Your task to perform on an android device: Show me recent news Image 0: 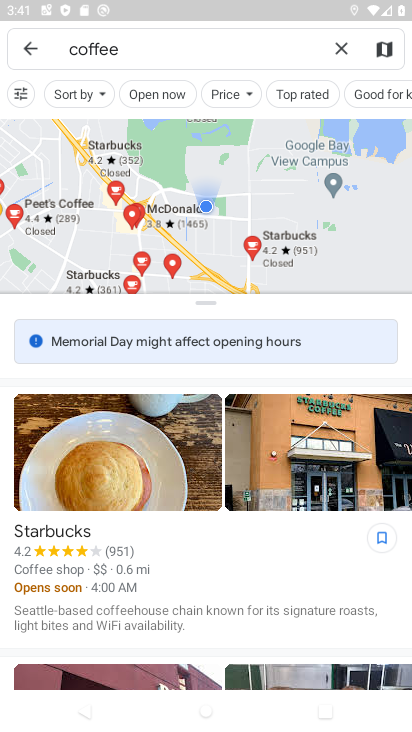
Step 0: press back button
Your task to perform on an android device: Show me recent news Image 1: 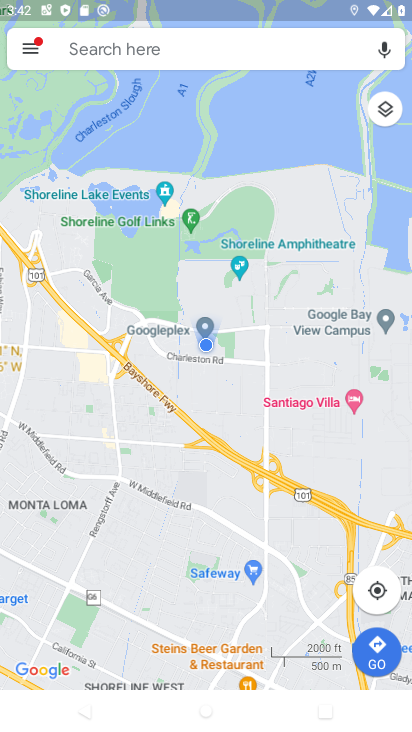
Step 1: press back button
Your task to perform on an android device: Show me recent news Image 2: 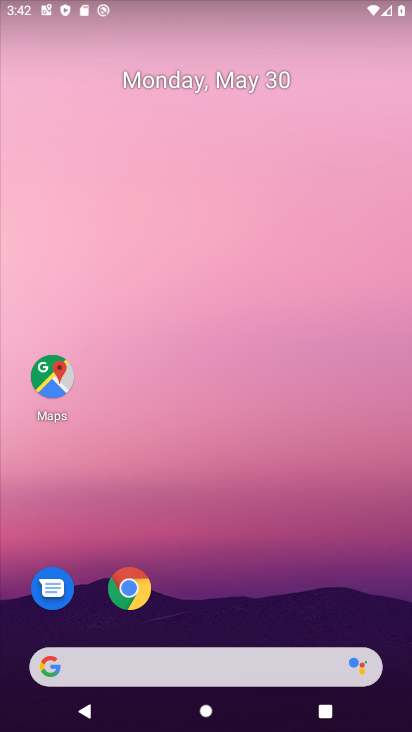
Step 2: drag from (292, 562) to (220, 45)
Your task to perform on an android device: Show me recent news Image 3: 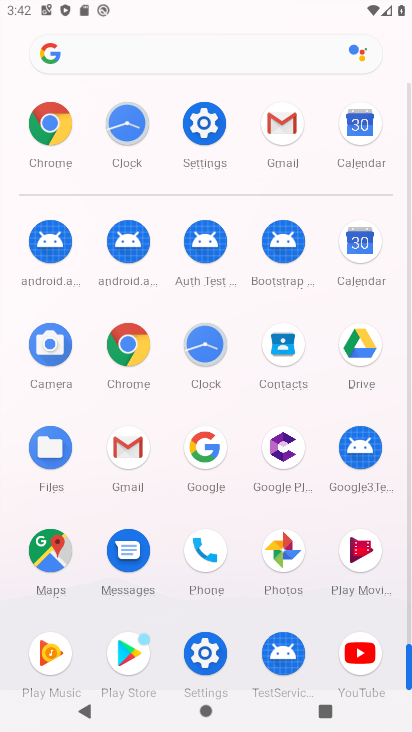
Step 3: drag from (0, 532) to (8, 210)
Your task to perform on an android device: Show me recent news Image 4: 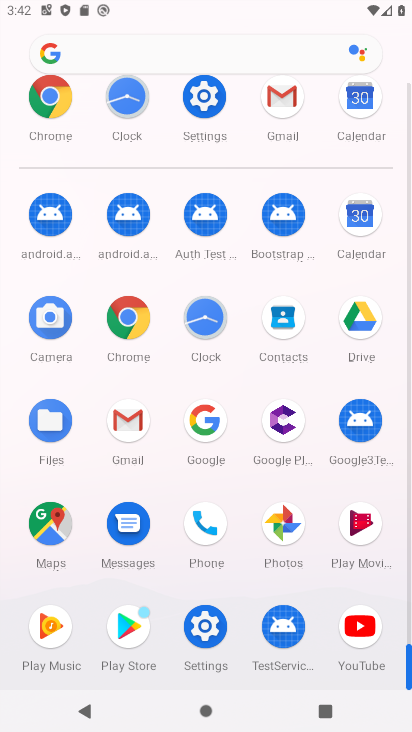
Step 4: click (125, 315)
Your task to perform on an android device: Show me recent news Image 5: 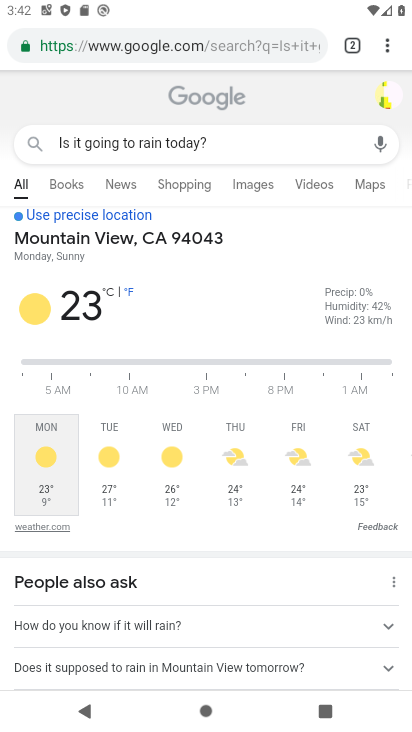
Step 5: click (193, 34)
Your task to perform on an android device: Show me recent news Image 6: 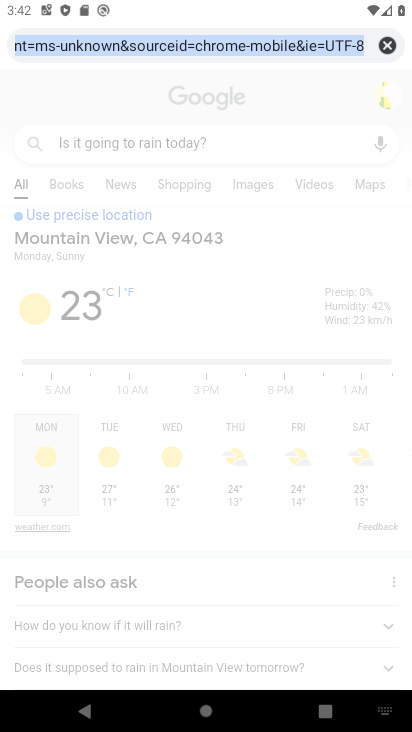
Step 6: click (384, 41)
Your task to perform on an android device: Show me recent news Image 7: 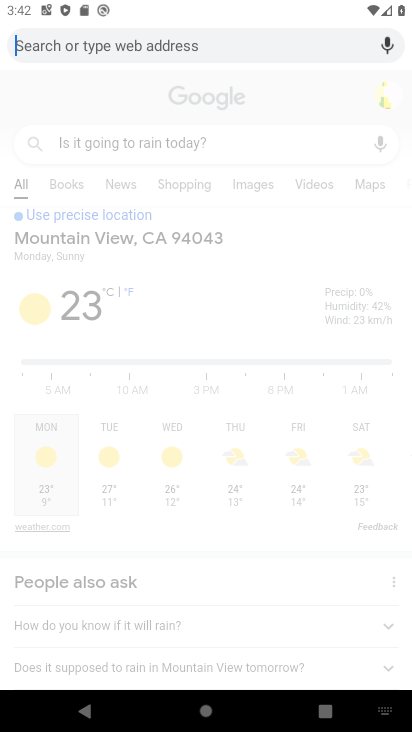
Step 7: type "Show me recent news"
Your task to perform on an android device: Show me recent news Image 8: 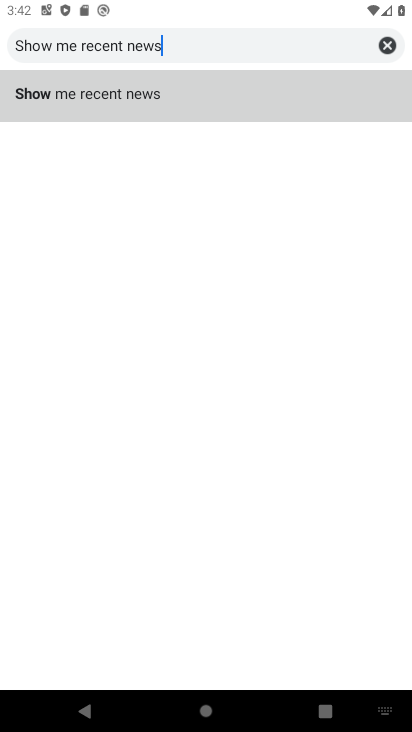
Step 8: type ""
Your task to perform on an android device: Show me recent news Image 9: 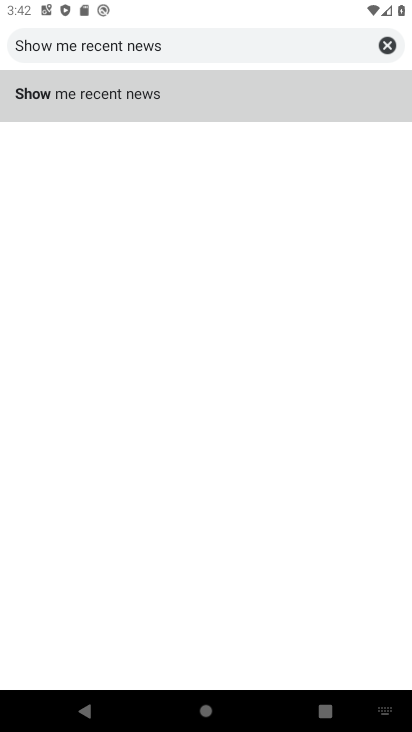
Step 9: click (173, 101)
Your task to perform on an android device: Show me recent news Image 10: 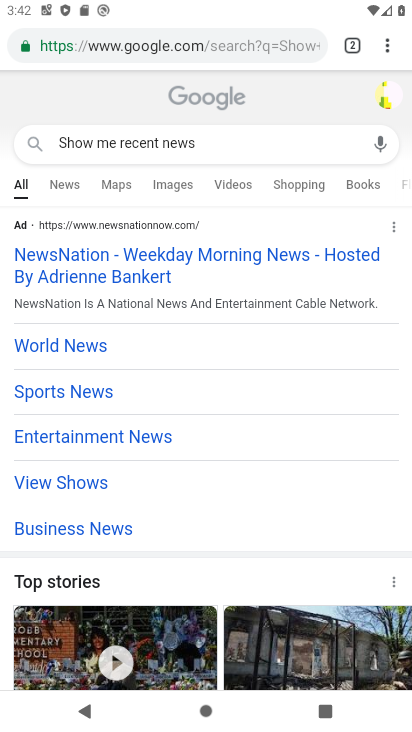
Step 10: click (72, 186)
Your task to perform on an android device: Show me recent news Image 11: 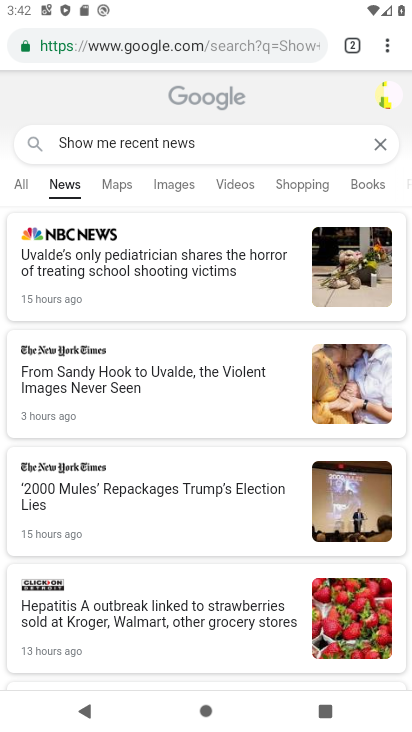
Step 11: task complete